Your task to perform on an android device: Show me popular games on the Play Store Image 0: 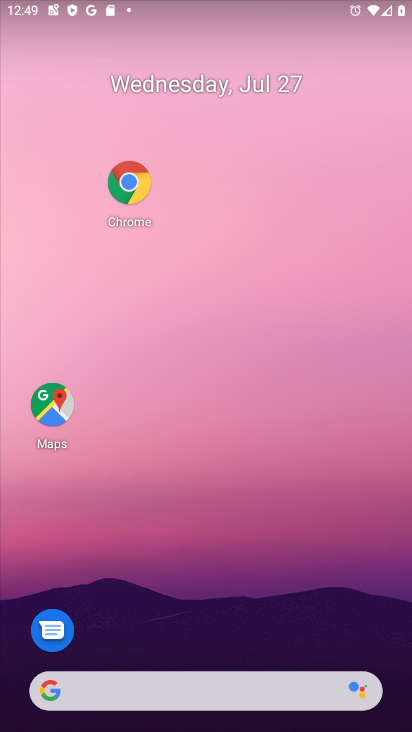
Step 0: drag from (143, 728) to (352, 166)
Your task to perform on an android device: Show me popular games on the Play Store Image 1: 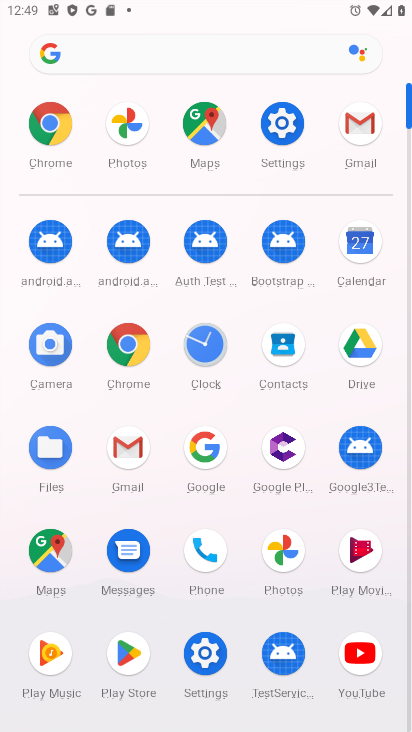
Step 1: click (129, 651)
Your task to perform on an android device: Show me popular games on the Play Store Image 2: 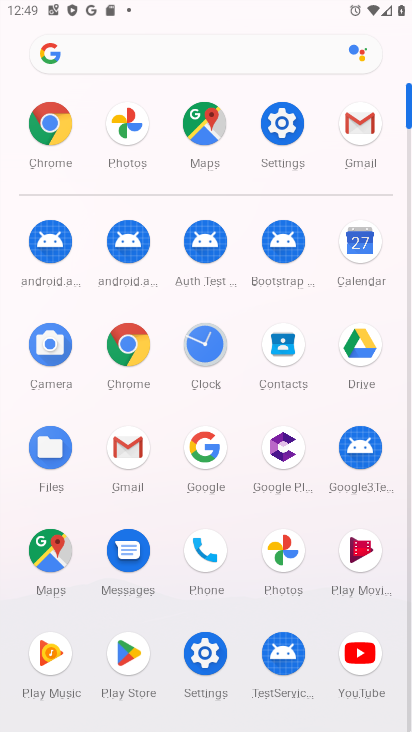
Step 2: click (129, 651)
Your task to perform on an android device: Show me popular games on the Play Store Image 3: 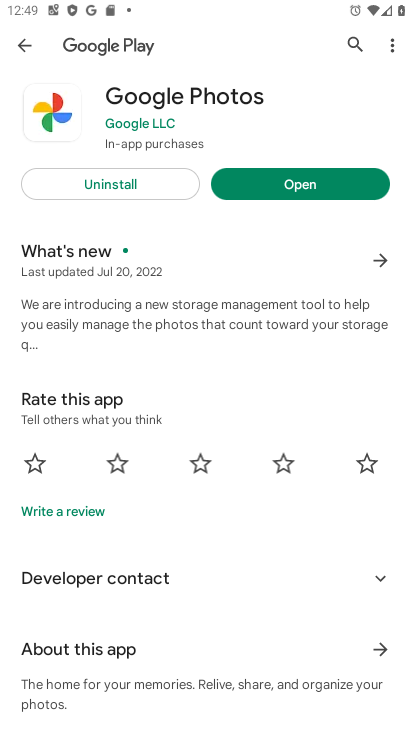
Step 3: click (20, 41)
Your task to perform on an android device: Show me popular games on the Play Store Image 4: 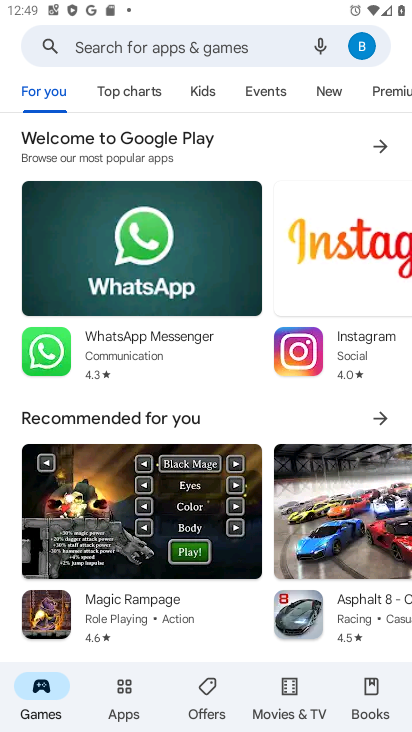
Step 4: task complete